Your task to perform on an android device: change timer sound Image 0: 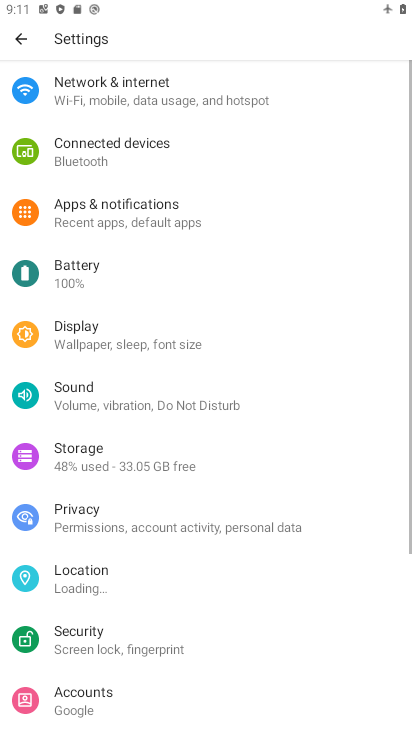
Step 0: press home button
Your task to perform on an android device: change timer sound Image 1: 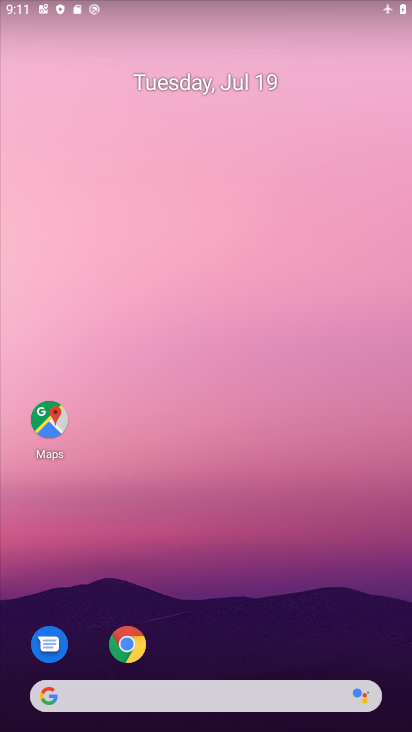
Step 1: drag from (180, 662) to (42, 49)
Your task to perform on an android device: change timer sound Image 2: 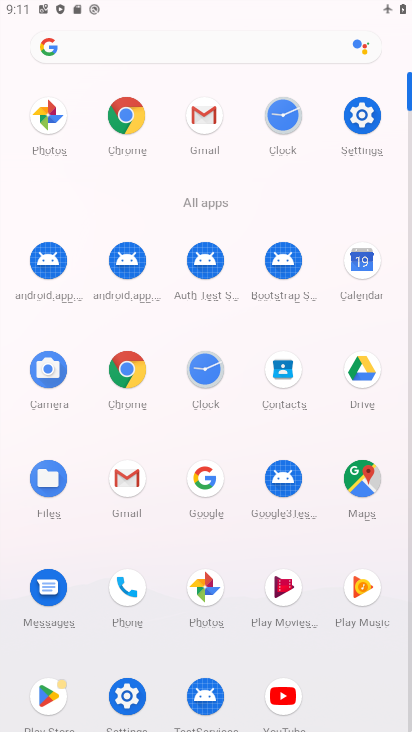
Step 2: click (279, 108)
Your task to perform on an android device: change timer sound Image 3: 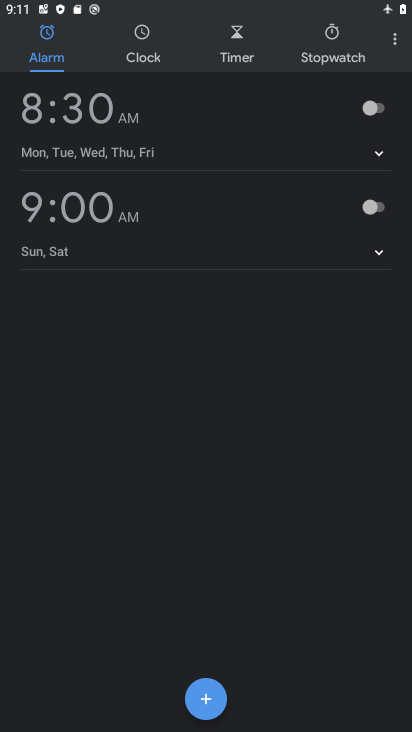
Step 3: click (396, 43)
Your task to perform on an android device: change timer sound Image 4: 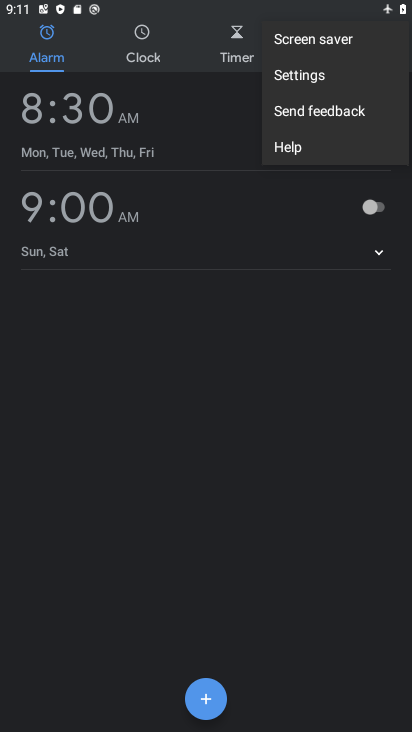
Step 4: click (296, 77)
Your task to perform on an android device: change timer sound Image 5: 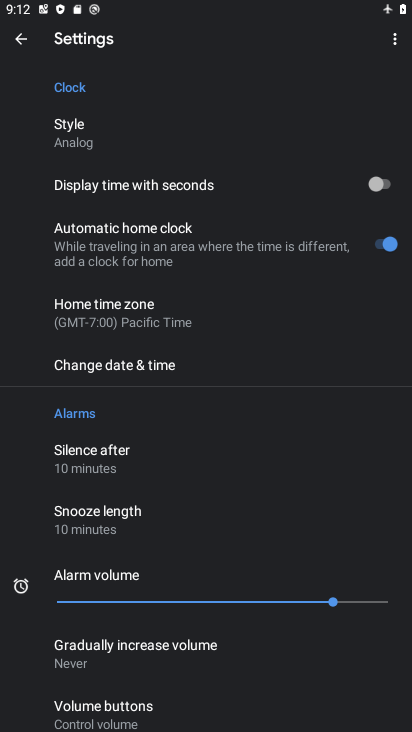
Step 5: drag from (135, 621) to (124, 254)
Your task to perform on an android device: change timer sound Image 6: 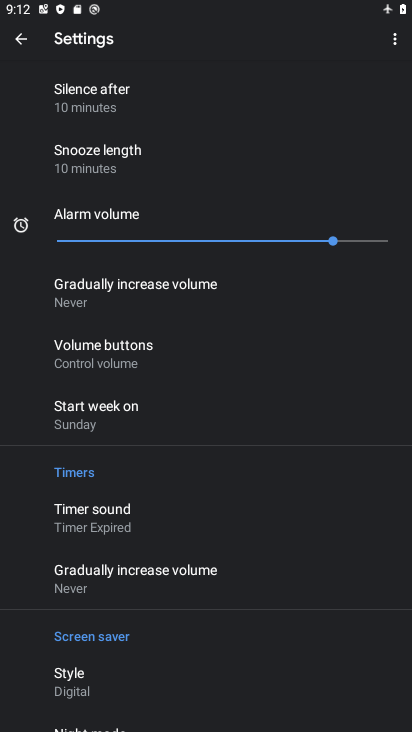
Step 6: click (79, 527)
Your task to perform on an android device: change timer sound Image 7: 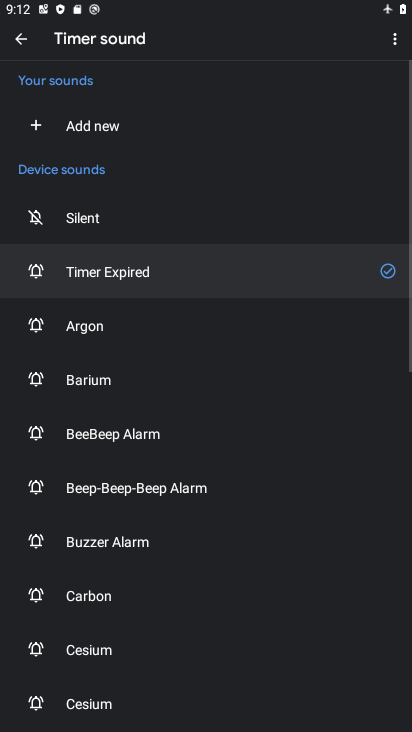
Step 7: click (83, 322)
Your task to perform on an android device: change timer sound Image 8: 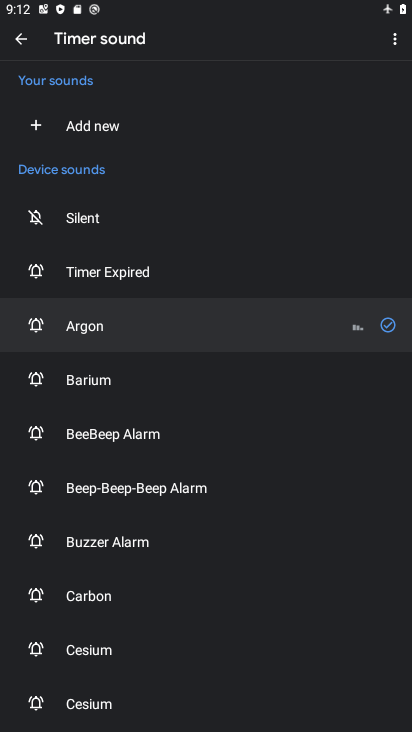
Step 8: task complete